Your task to perform on an android device: Search for amazon basics triple a on amazon.com, select the first entry, add it to the cart, then select checkout. Image 0: 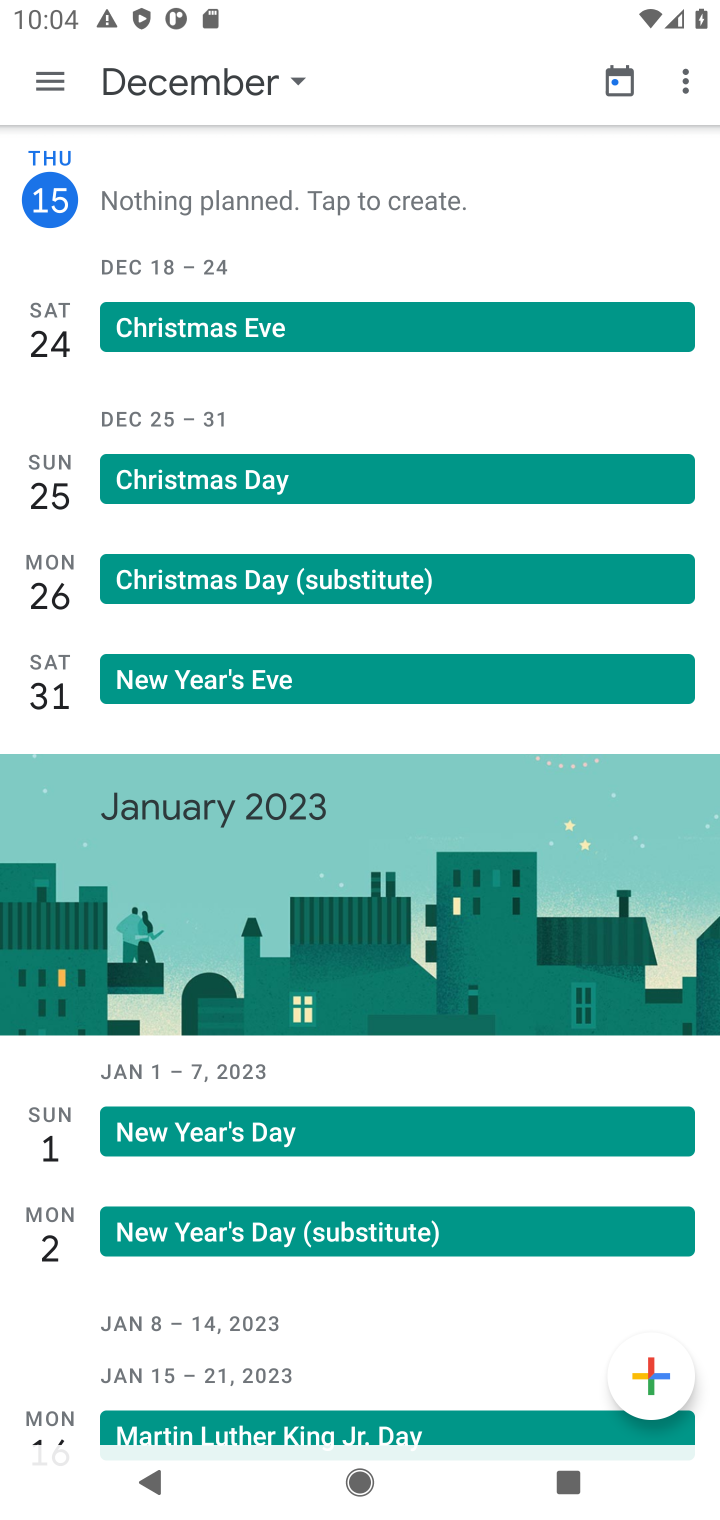
Step 0: press home button
Your task to perform on an android device: Search for amazon basics triple a on amazon.com, select the first entry, add it to the cart, then select checkout. Image 1: 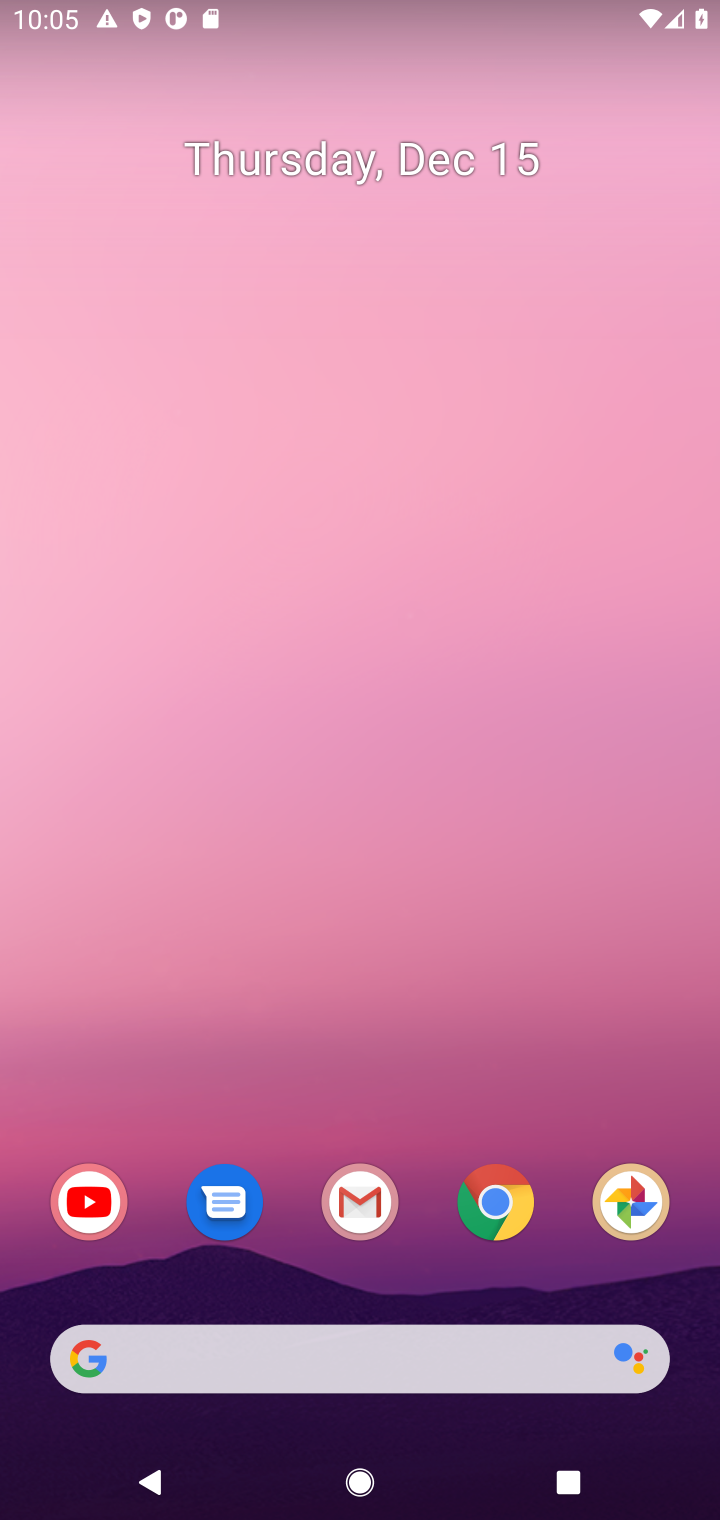
Step 1: click (494, 1207)
Your task to perform on an android device: Search for amazon basics triple a on amazon.com, select the first entry, add it to the cart, then select checkout. Image 2: 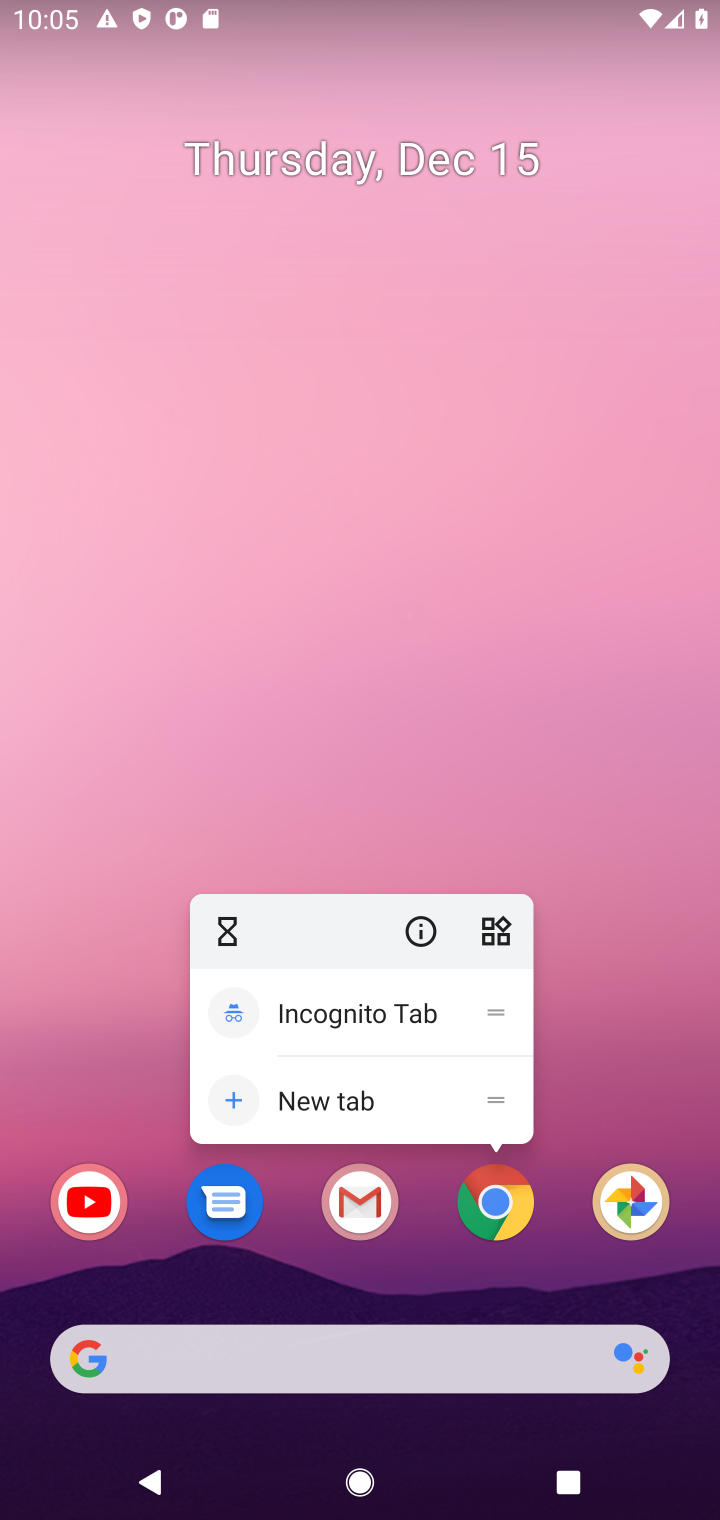
Step 2: click (494, 1207)
Your task to perform on an android device: Search for amazon basics triple a on amazon.com, select the first entry, add it to the cart, then select checkout. Image 3: 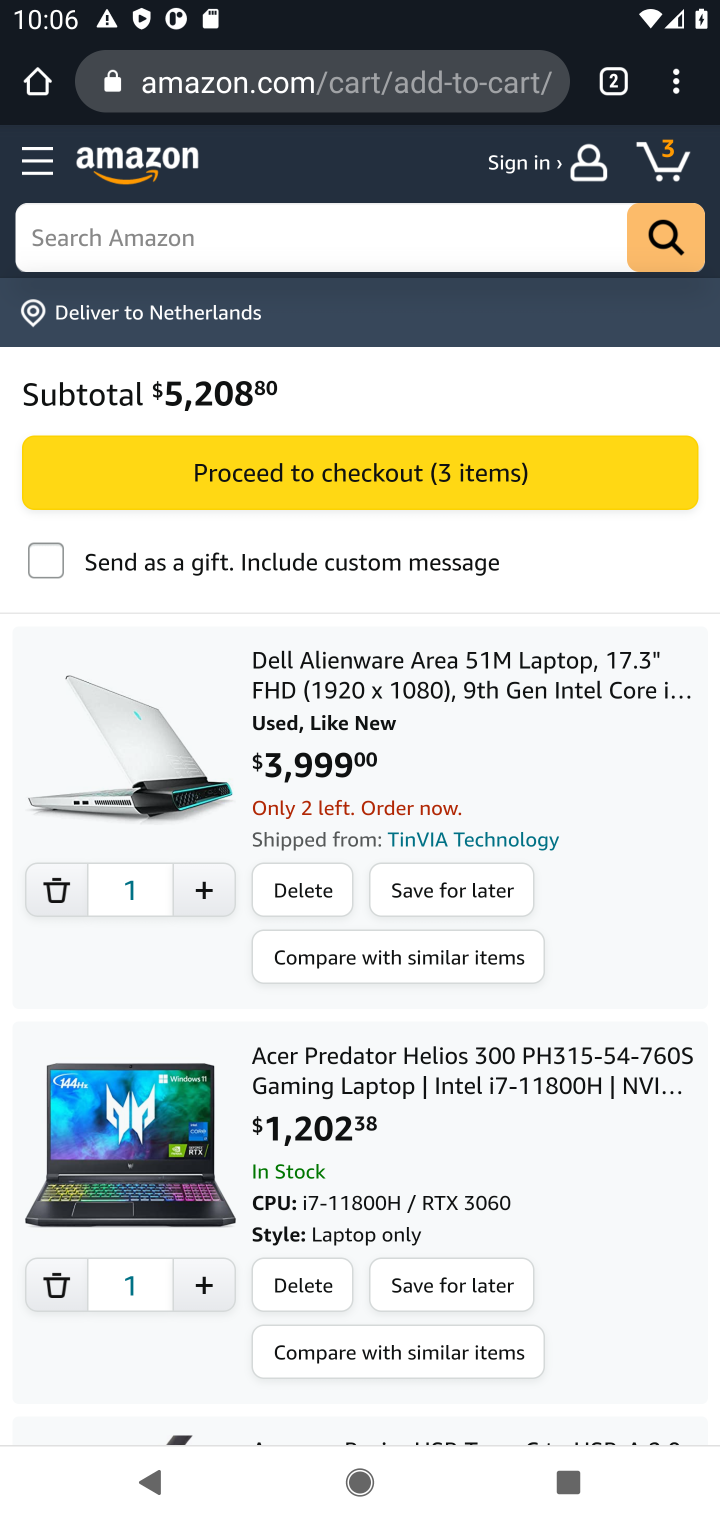
Step 3: click (102, 236)
Your task to perform on an android device: Search for amazon basics triple a on amazon.com, select the first entry, add it to the cart, then select checkout. Image 4: 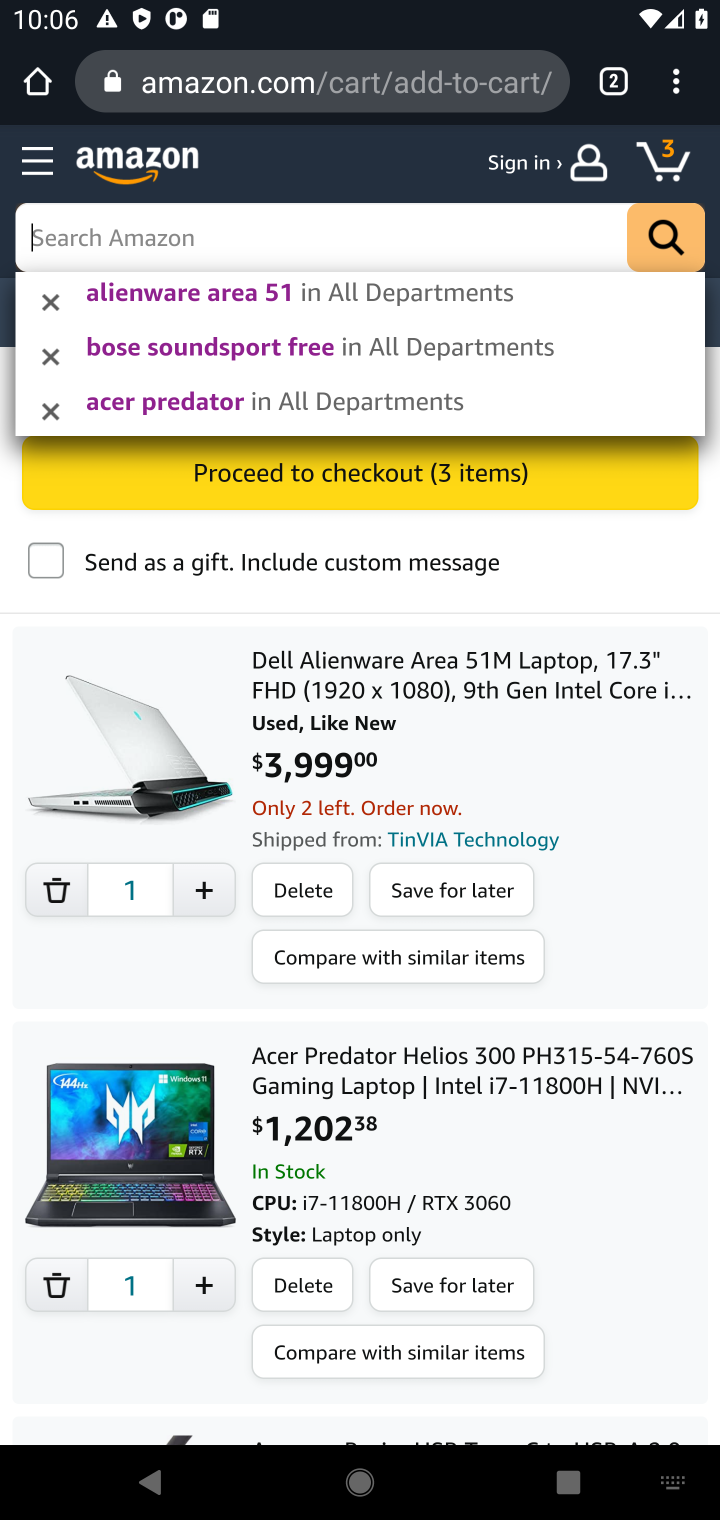
Step 4: type "amazon basics triple a"
Your task to perform on an android device: Search for amazon basics triple a on amazon.com, select the first entry, add it to the cart, then select checkout. Image 5: 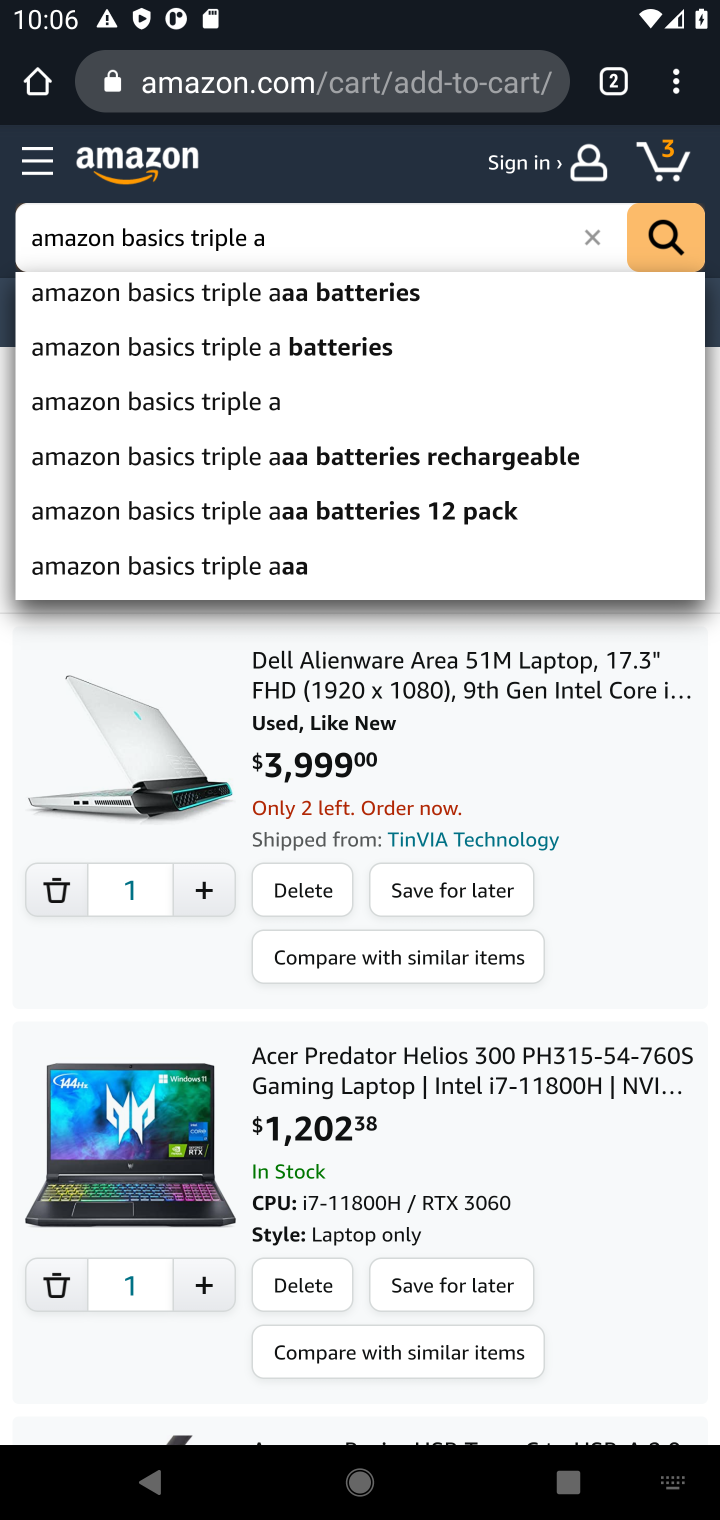
Step 5: click (153, 302)
Your task to perform on an android device: Search for amazon basics triple a on amazon.com, select the first entry, add it to the cart, then select checkout. Image 6: 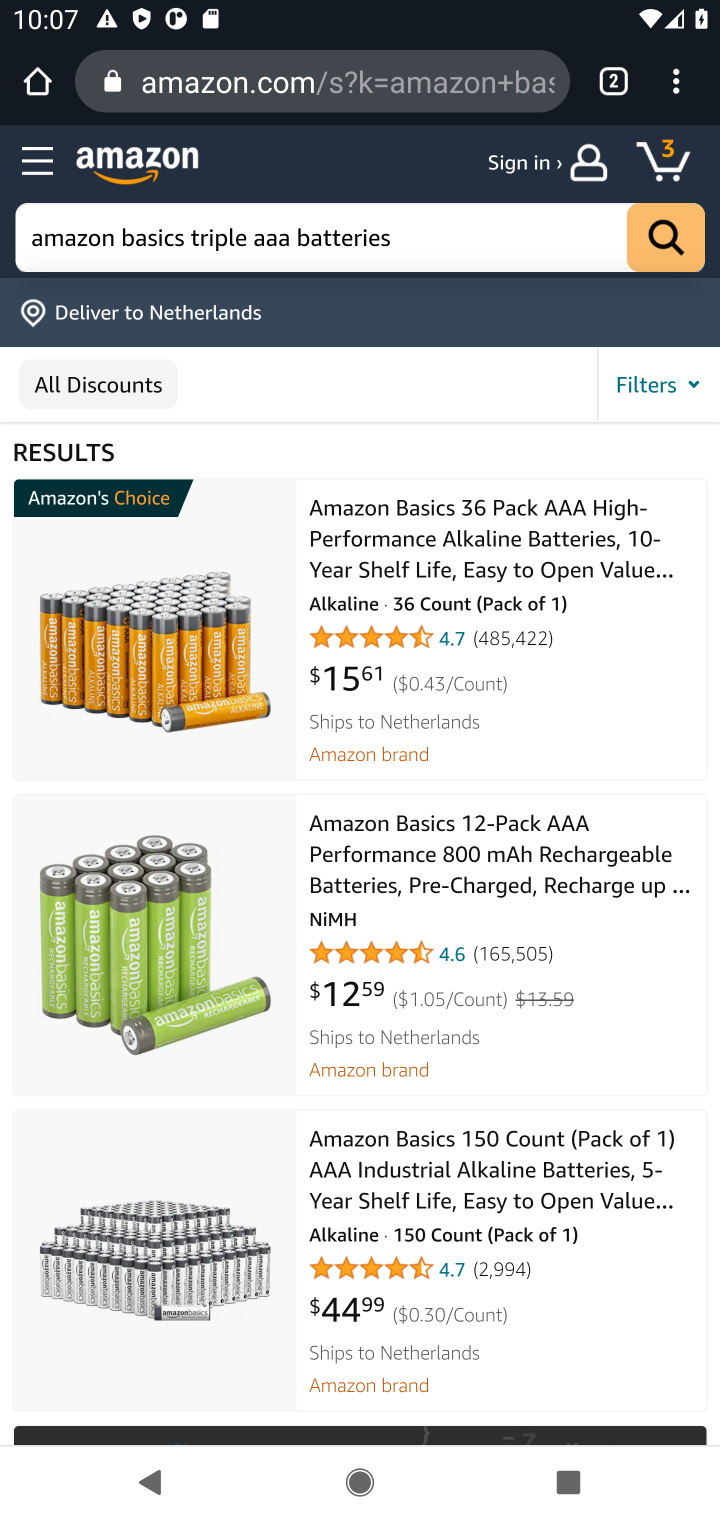
Step 6: click (426, 577)
Your task to perform on an android device: Search for amazon basics triple a on amazon.com, select the first entry, add it to the cart, then select checkout. Image 7: 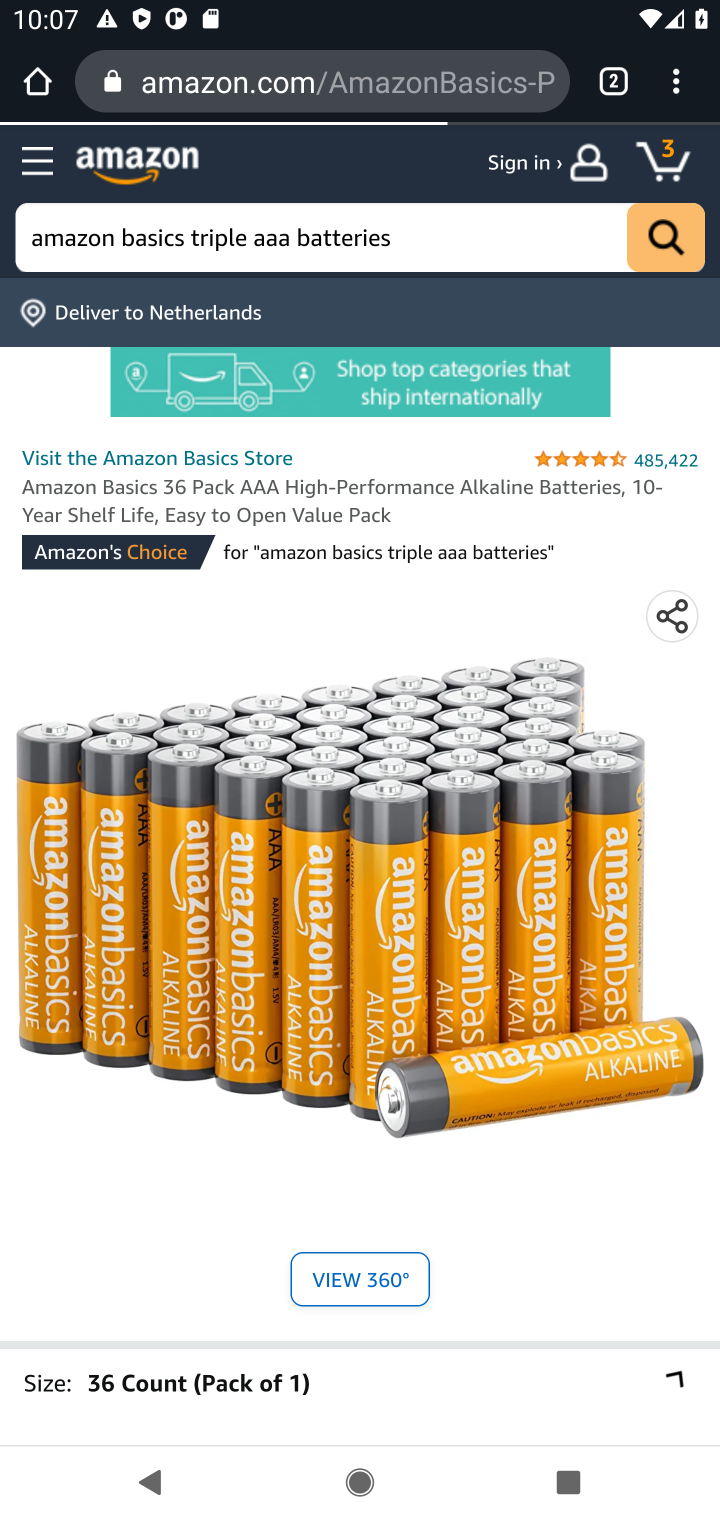
Step 7: drag from (289, 1128) to (297, 475)
Your task to perform on an android device: Search for amazon basics triple a on amazon.com, select the first entry, add it to the cart, then select checkout. Image 8: 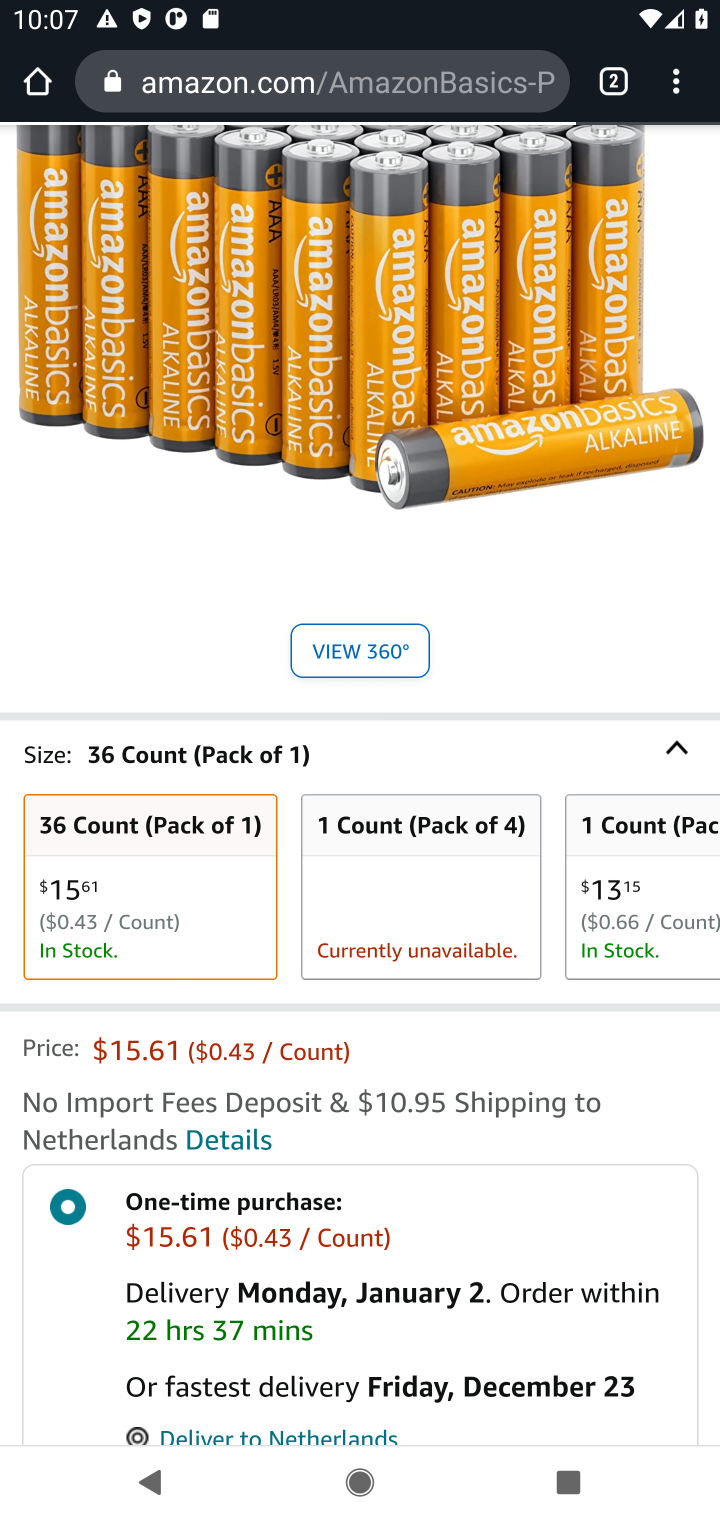
Step 8: drag from (289, 869) to (301, 631)
Your task to perform on an android device: Search for amazon basics triple a on amazon.com, select the first entry, add it to the cart, then select checkout. Image 9: 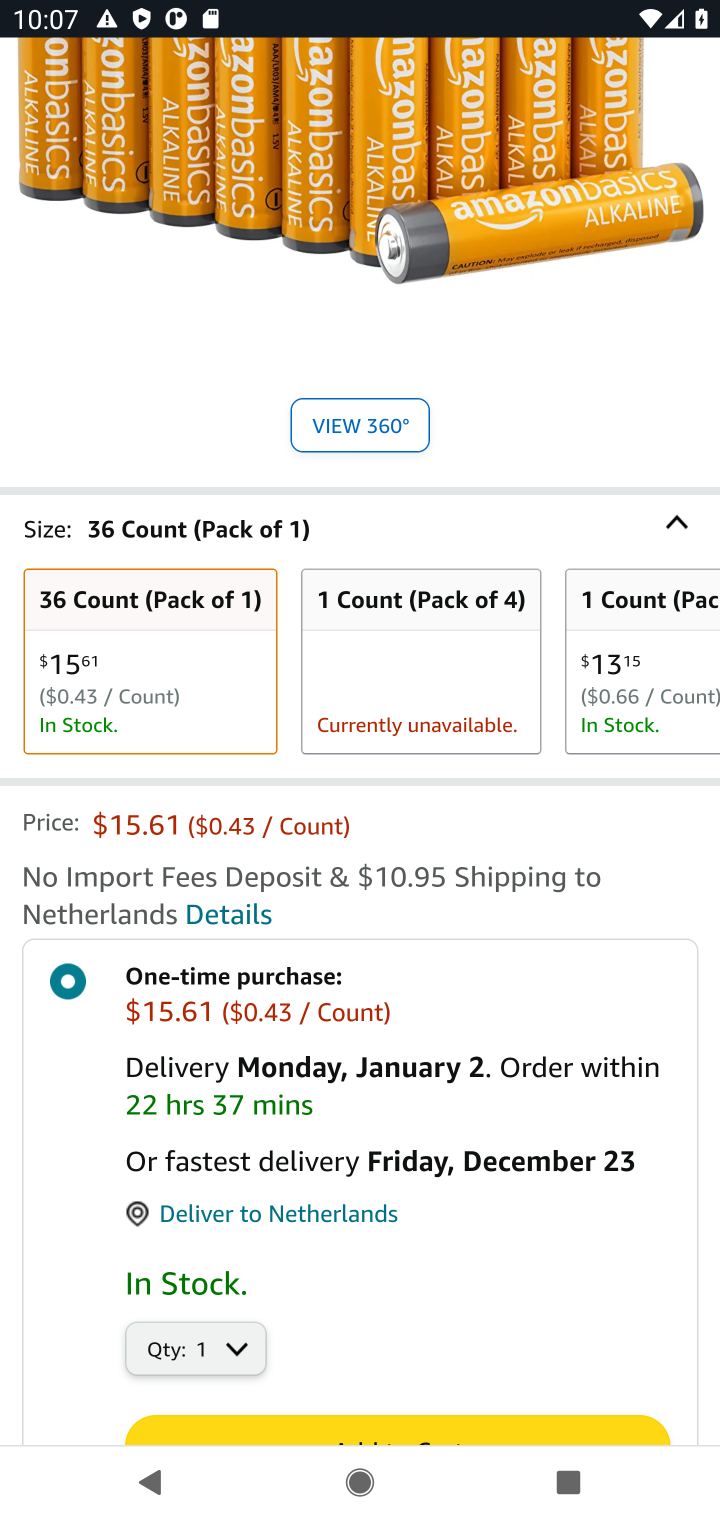
Step 9: drag from (309, 1241) to (333, 940)
Your task to perform on an android device: Search for amazon basics triple a on amazon.com, select the first entry, add it to the cart, then select checkout. Image 10: 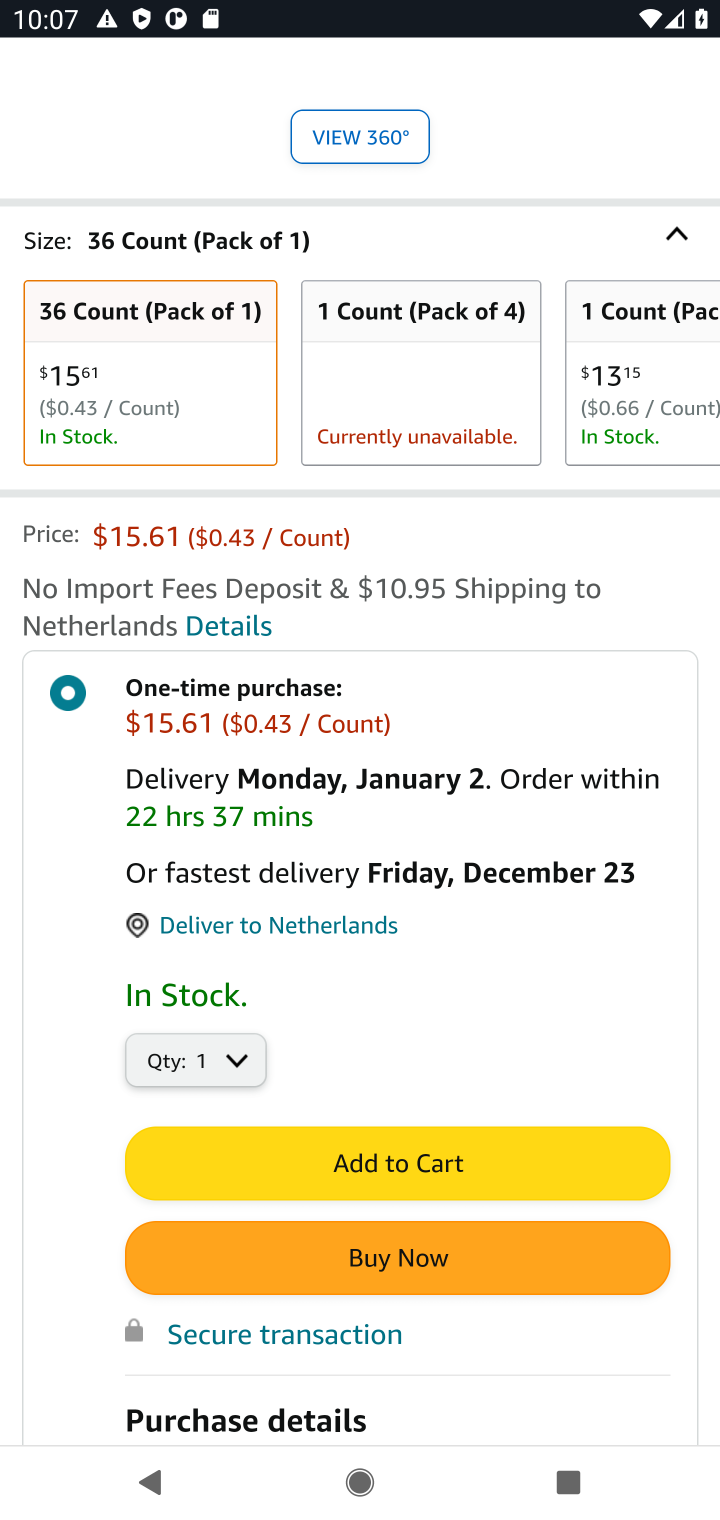
Step 10: click (308, 1171)
Your task to perform on an android device: Search for amazon basics triple a on amazon.com, select the first entry, add it to the cart, then select checkout. Image 11: 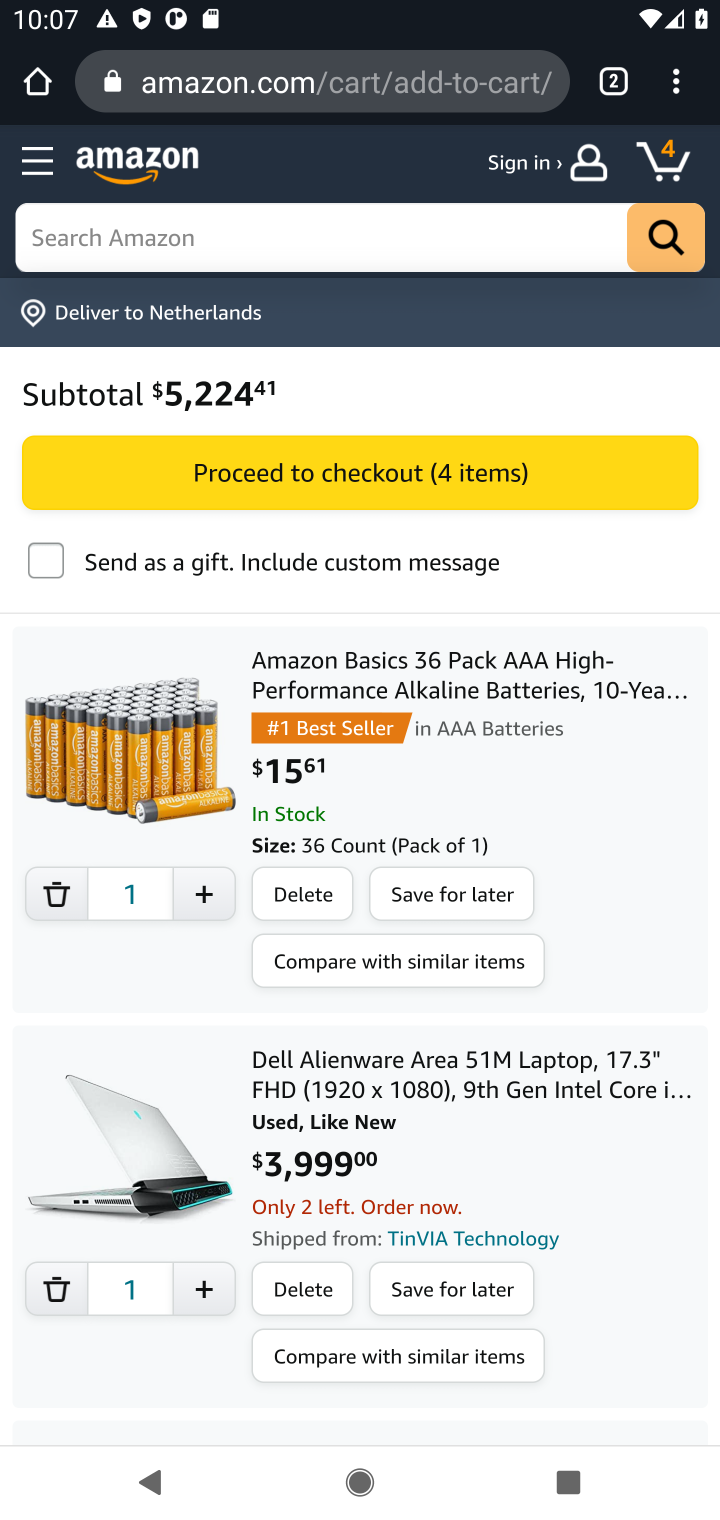
Step 11: click (289, 472)
Your task to perform on an android device: Search for amazon basics triple a on amazon.com, select the first entry, add it to the cart, then select checkout. Image 12: 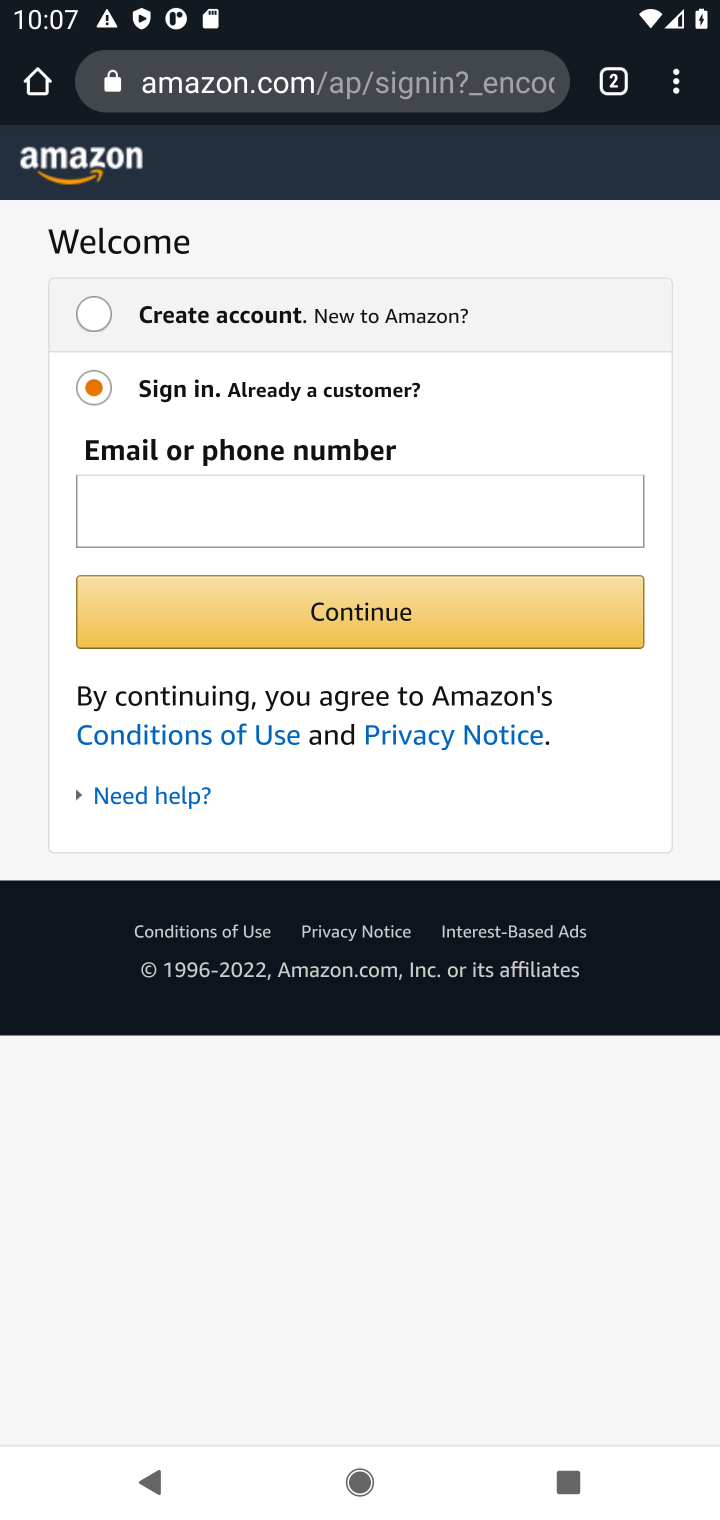
Step 12: task complete